Your task to perform on an android device: Open the phone app and click the voicemail tab. Image 0: 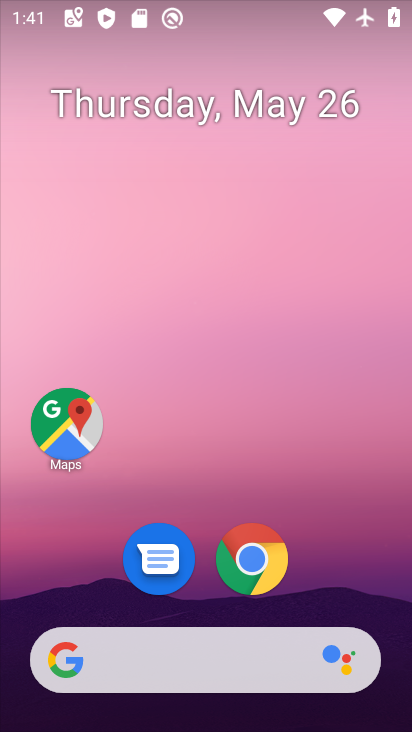
Step 0: press home button
Your task to perform on an android device: Open the phone app and click the voicemail tab. Image 1: 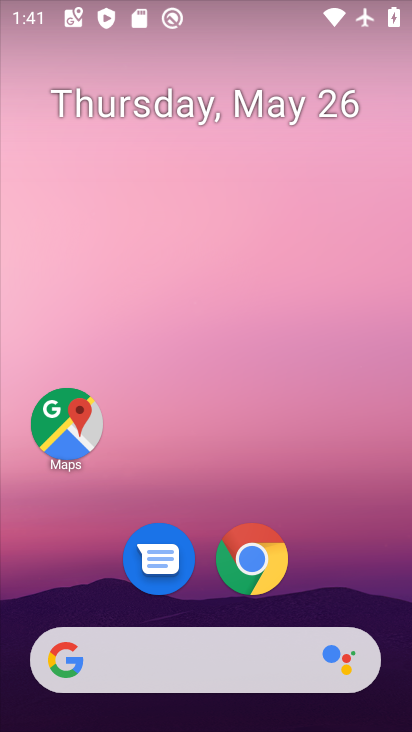
Step 1: drag from (164, 637) to (273, 103)
Your task to perform on an android device: Open the phone app and click the voicemail tab. Image 2: 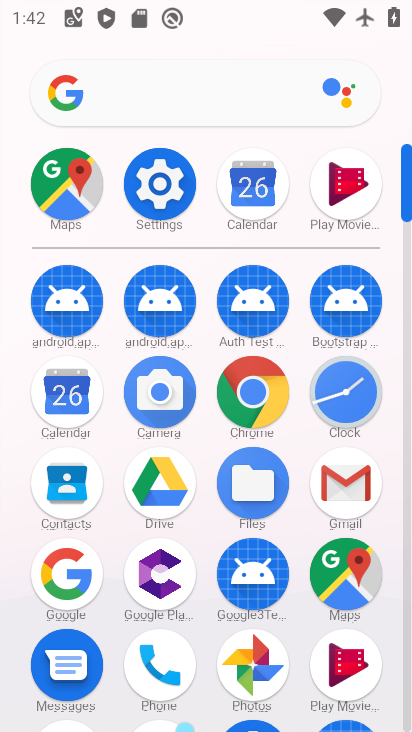
Step 2: click (152, 661)
Your task to perform on an android device: Open the phone app and click the voicemail tab. Image 3: 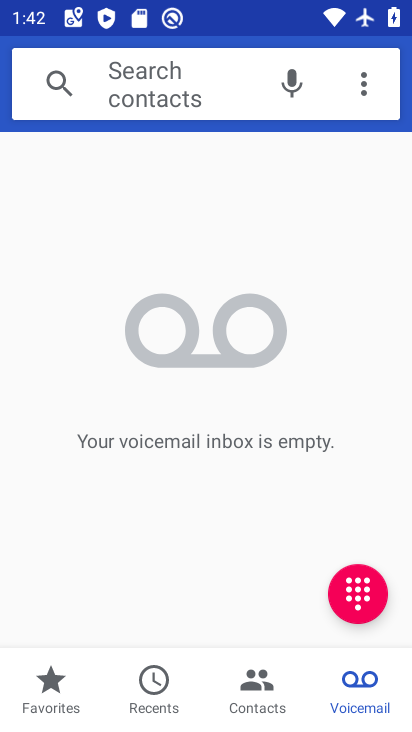
Step 3: click (353, 697)
Your task to perform on an android device: Open the phone app and click the voicemail tab. Image 4: 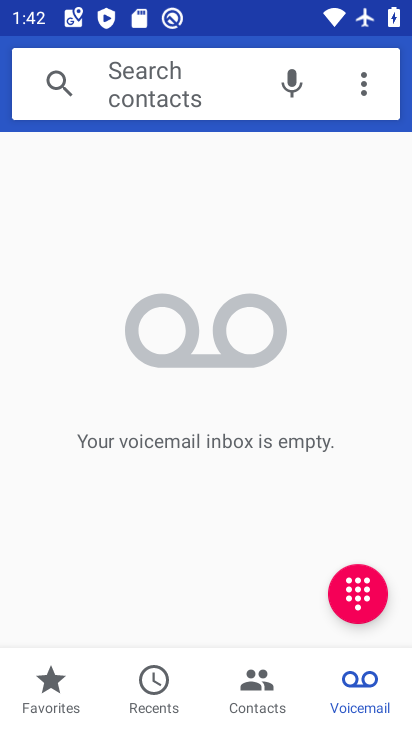
Step 4: task complete